Your task to perform on an android device: remove spam from my inbox in the gmail app Image 0: 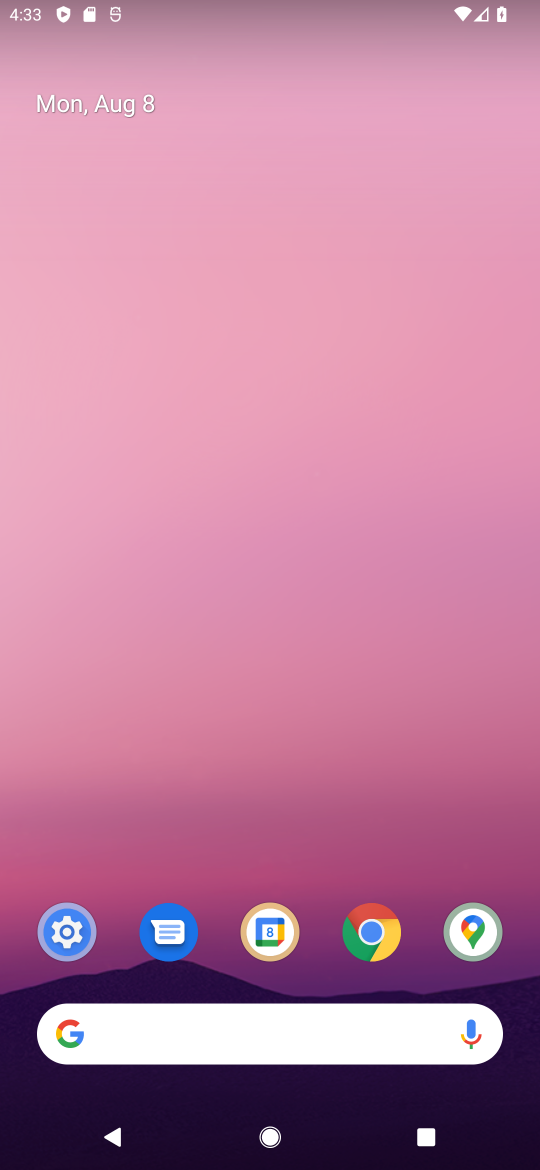
Step 0: drag from (329, 1127) to (419, 234)
Your task to perform on an android device: remove spam from my inbox in the gmail app Image 1: 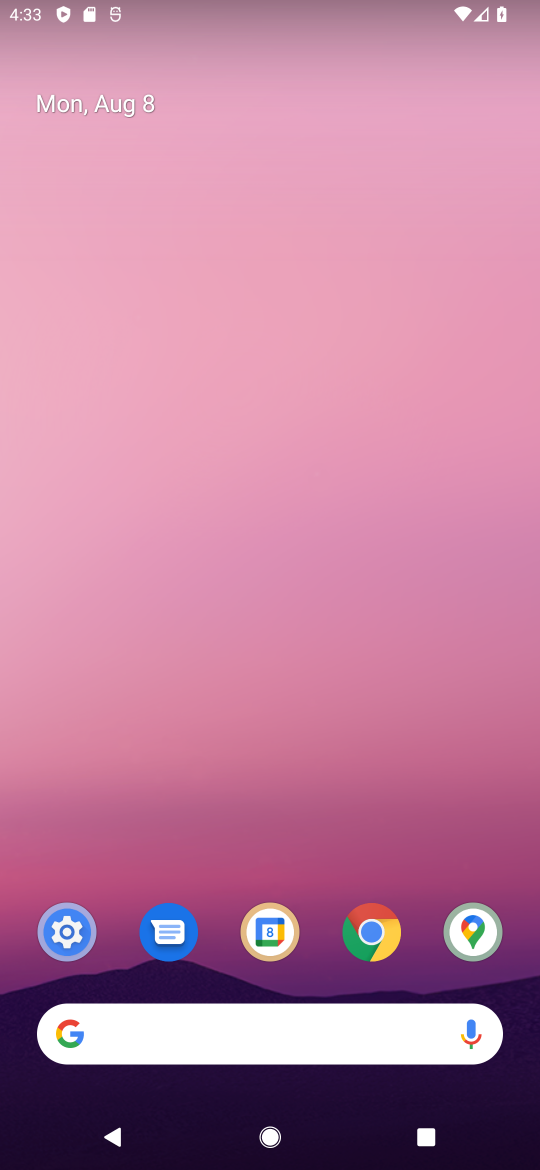
Step 1: drag from (188, 1116) to (500, 5)
Your task to perform on an android device: remove spam from my inbox in the gmail app Image 2: 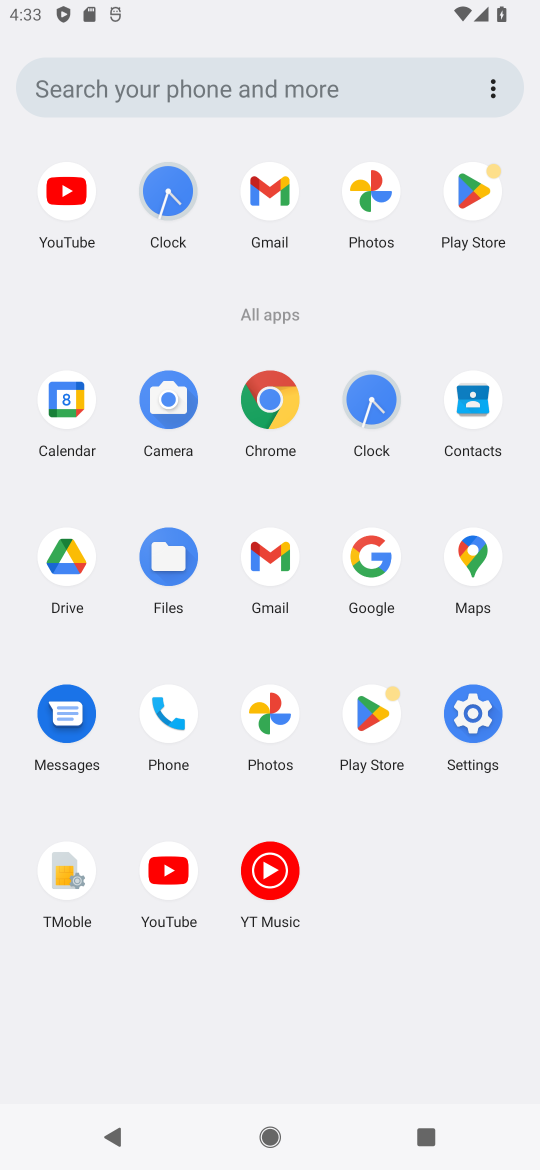
Step 2: click (289, 186)
Your task to perform on an android device: remove spam from my inbox in the gmail app Image 3: 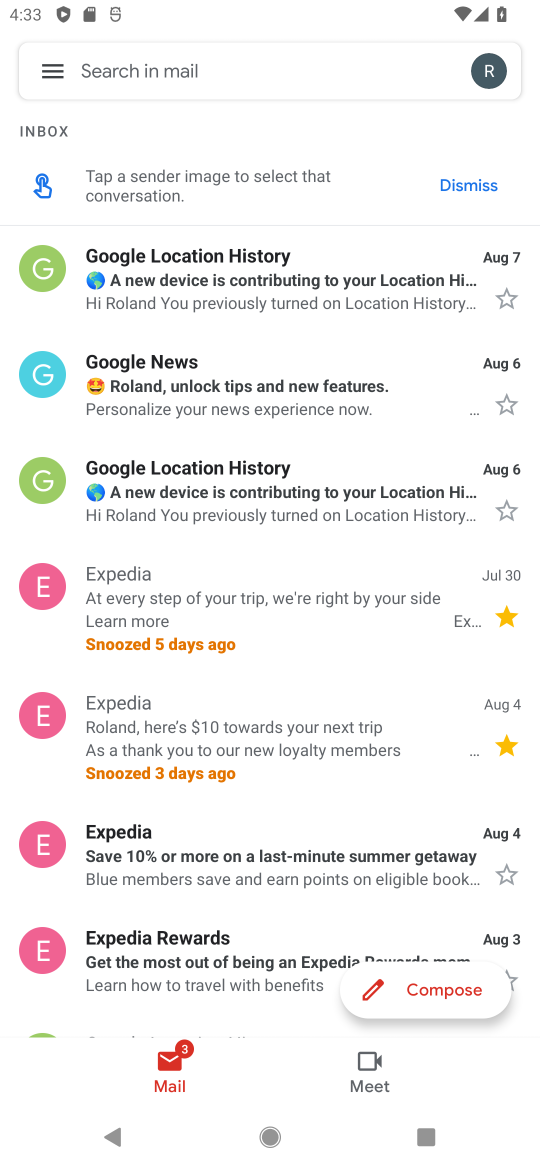
Step 3: click (55, 69)
Your task to perform on an android device: remove spam from my inbox in the gmail app Image 4: 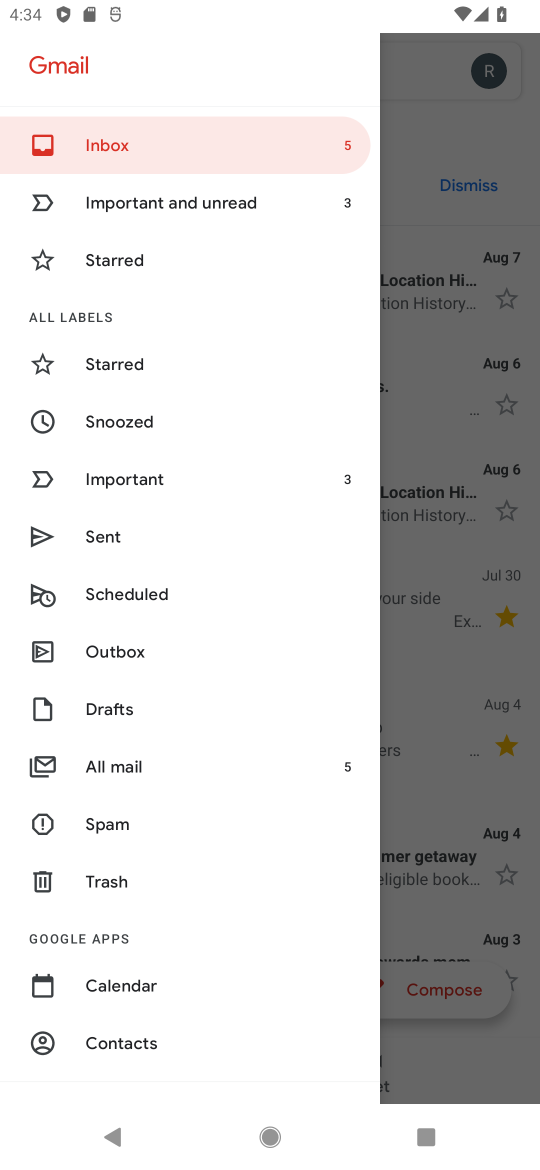
Step 4: click (139, 813)
Your task to perform on an android device: remove spam from my inbox in the gmail app Image 5: 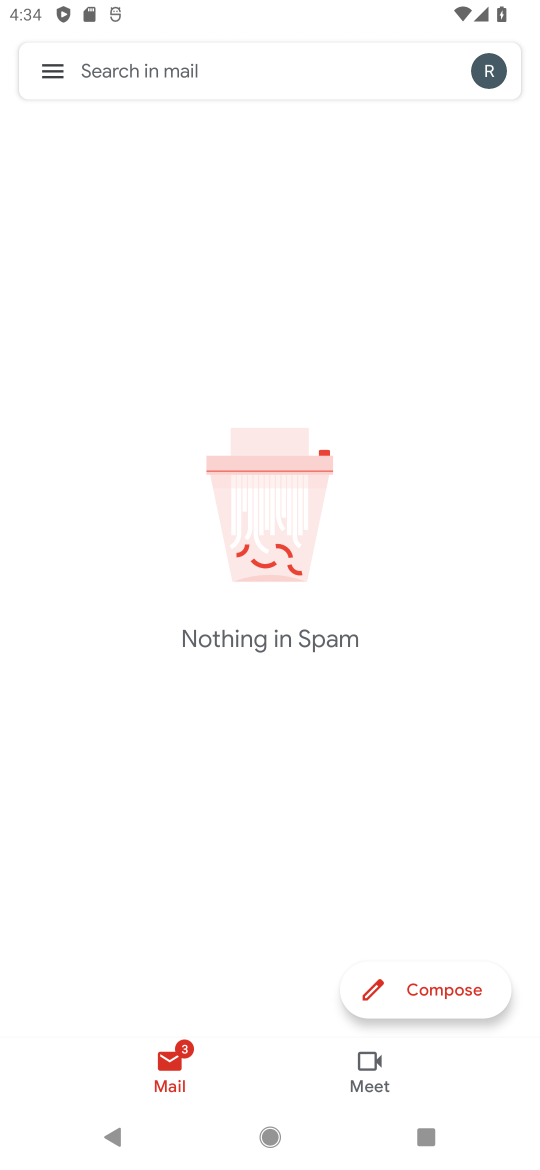
Step 5: task complete